Your task to perform on an android device: toggle priority inbox in the gmail app Image 0: 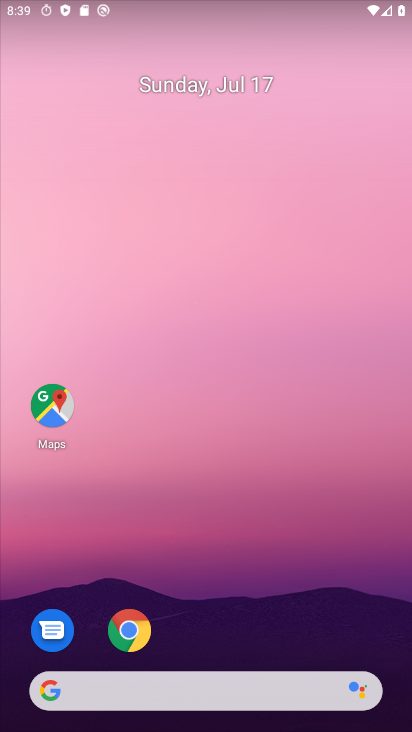
Step 0: drag from (179, 356) to (329, 63)
Your task to perform on an android device: toggle priority inbox in the gmail app Image 1: 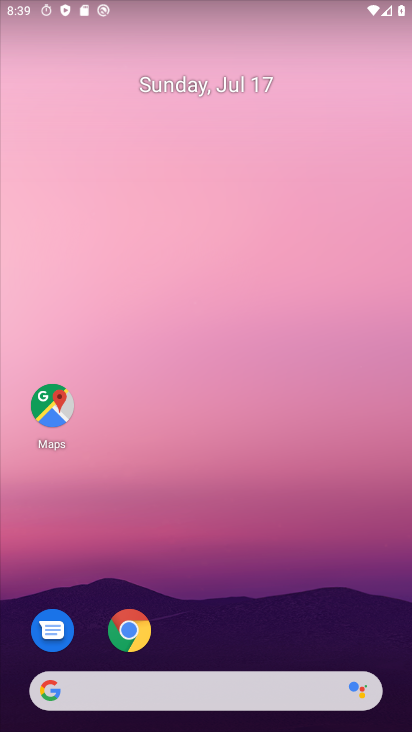
Step 1: drag from (36, 703) to (321, 56)
Your task to perform on an android device: toggle priority inbox in the gmail app Image 2: 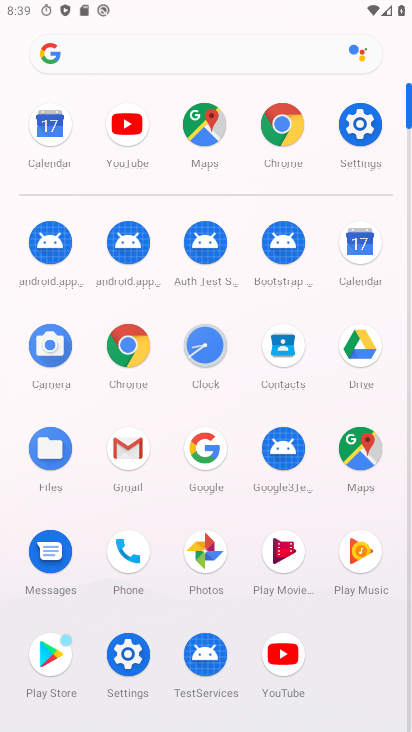
Step 2: click (118, 453)
Your task to perform on an android device: toggle priority inbox in the gmail app Image 3: 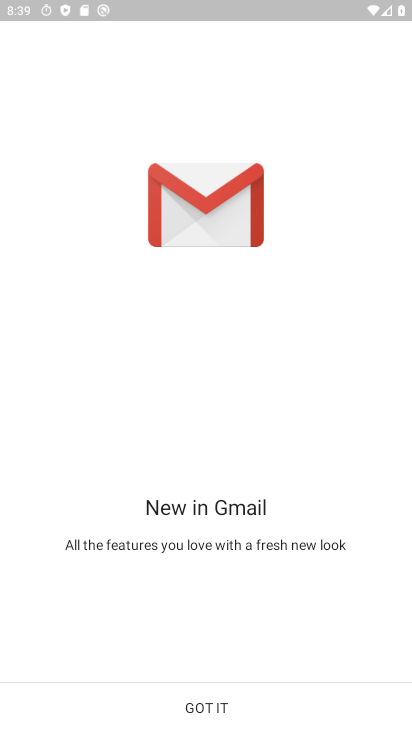
Step 3: click (219, 704)
Your task to perform on an android device: toggle priority inbox in the gmail app Image 4: 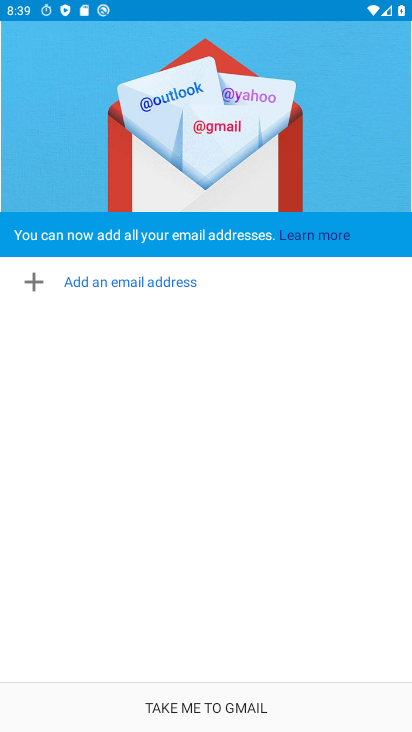
Step 4: click (202, 708)
Your task to perform on an android device: toggle priority inbox in the gmail app Image 5: 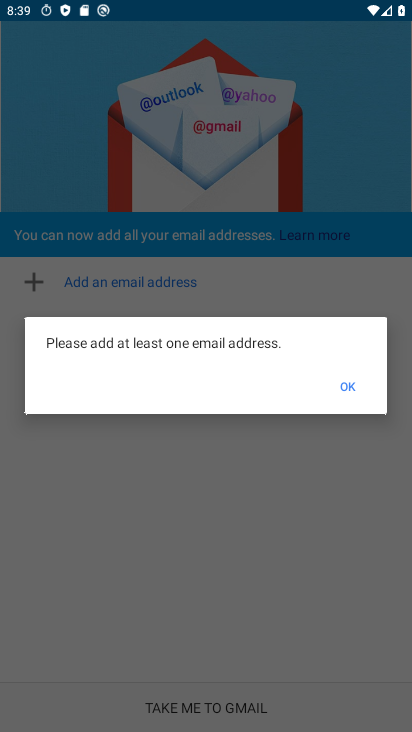
Step 5: click (354, 376)
Your task to perform on an android device: toggle priority inbox in the gmail app Image 6: 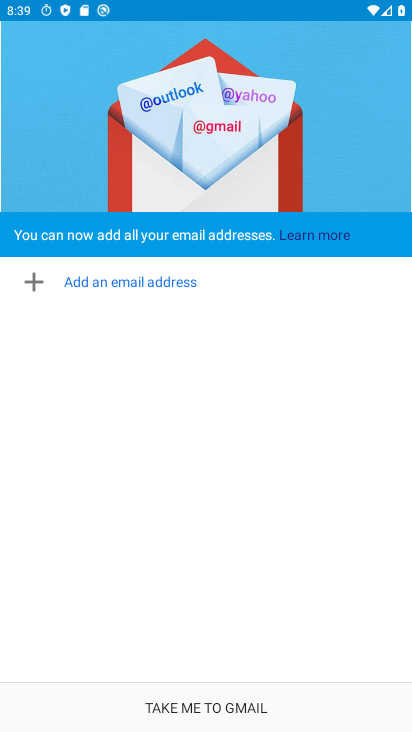
Step 6: click (140, 701)
Your task to perform on an android device: toggle priority inbox in the gmail app Image 7: 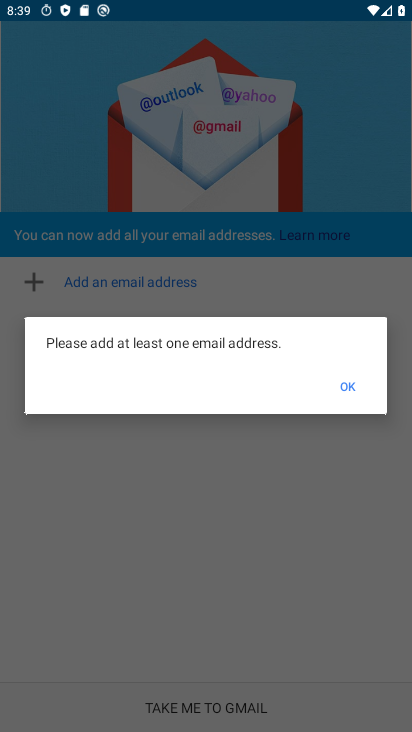
Step 7: click (350, 384)
Your task to perform on an android device: toggle priority inbox in the gmail app Image 8: 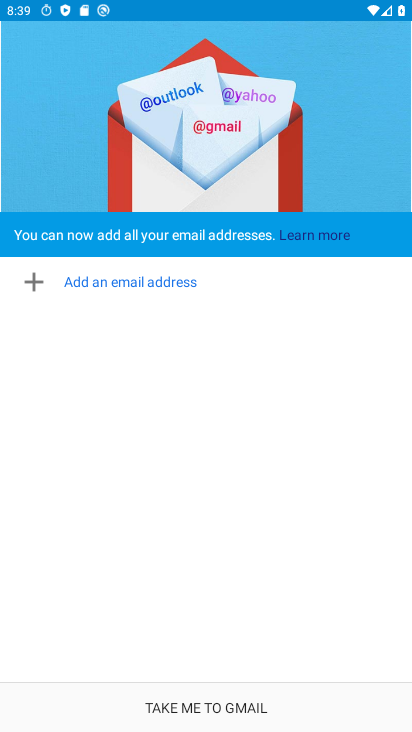
Step 8: task complete